Your task to perform on an android device: toggle priority inbox in the gmail app Image 0: 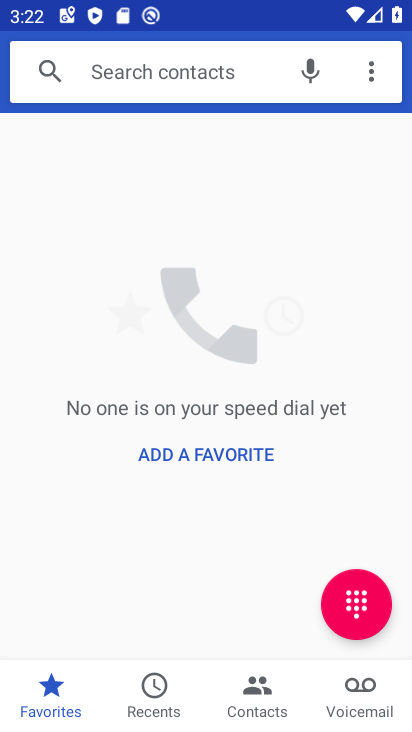
Step 0: press home button
Your task to perform on an android device: toggle priority inbox in the gmail app Image 1: 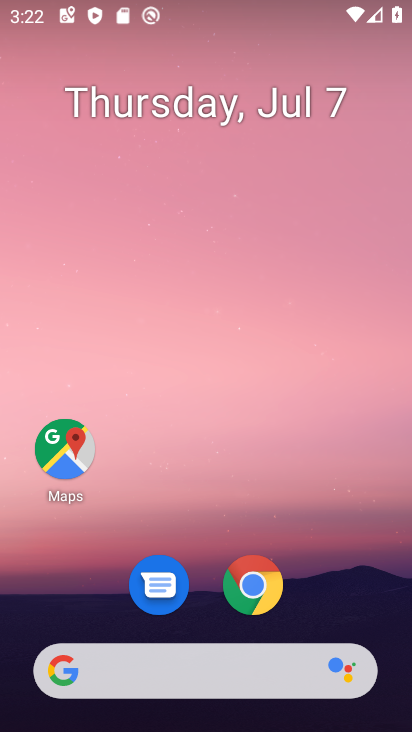
Step 1: drag from (249, 526) to (253, 0)
Your task to perform on an android device: toggle priority inbox in the gmail app Image 2: 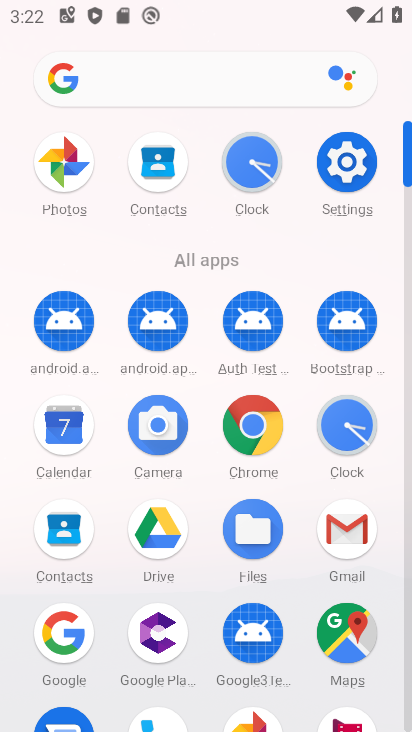
Step 2: click (348, 524)
Your task to perform on an android device: toggle priority inbox in the gmail app Image 3: 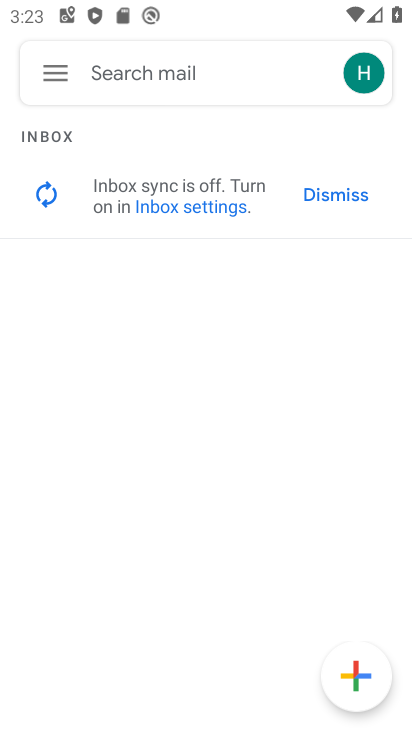
Step 3: click (56, 77)
Your task to perform on an android device: toggle priority inbox in the gmail app Image 4: 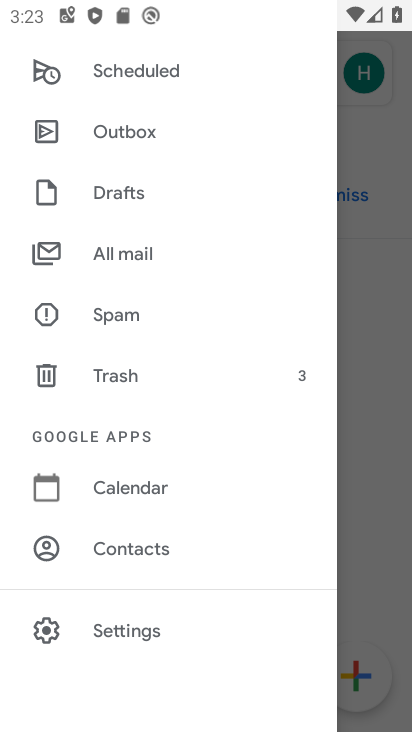
Step 4: click (131, 625)
Your task to perform on an android device: toggle priority inbox in the gmail app Image 5: 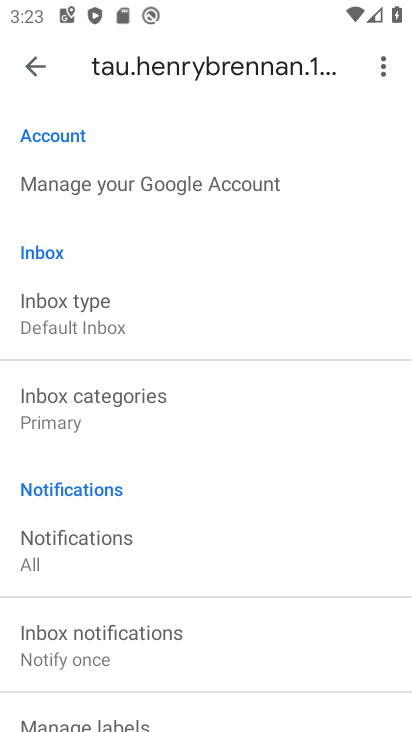
Step 5: click (106, 319)
Your task to perform on an android device: toggle priority inbox in the gmail app Image 6: 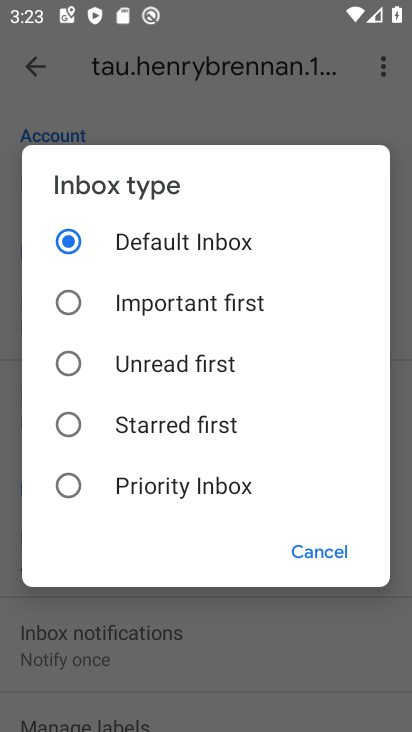
Step 6: click (67, 480)
Your task to perform on an android device: toggle priority inbox in the gmail app Image 7: 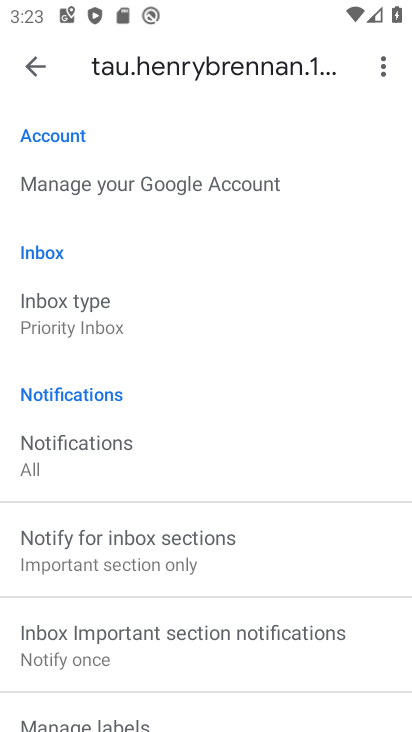
Step 7: task complete